Your task to perform on an android device: Open calendar and show me the fourth week of next month Image 0: 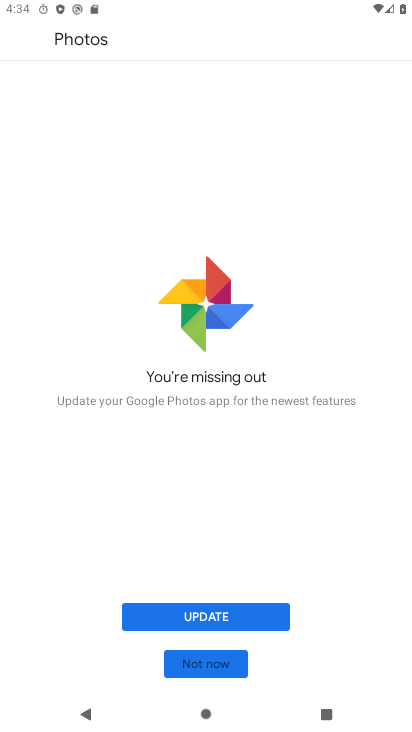
Step 0: click (205, 667)
Your task to perform on an android device: Open calendar and show me the fourth week of next month Image 1: 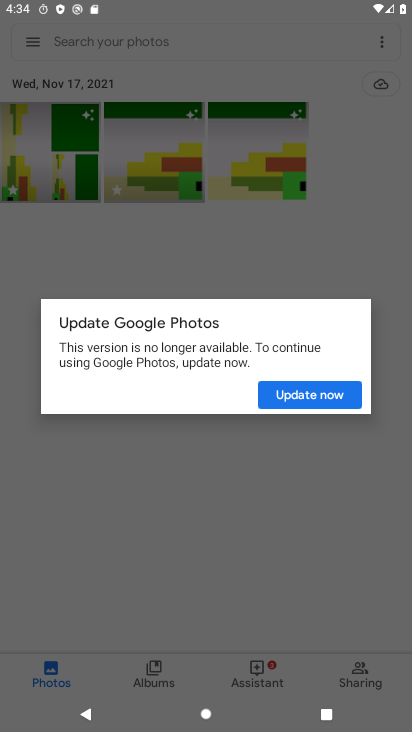
Step 1: press home button
Your task to perform on an android device: Open calendar and show me the fourth week of next month Image 2: 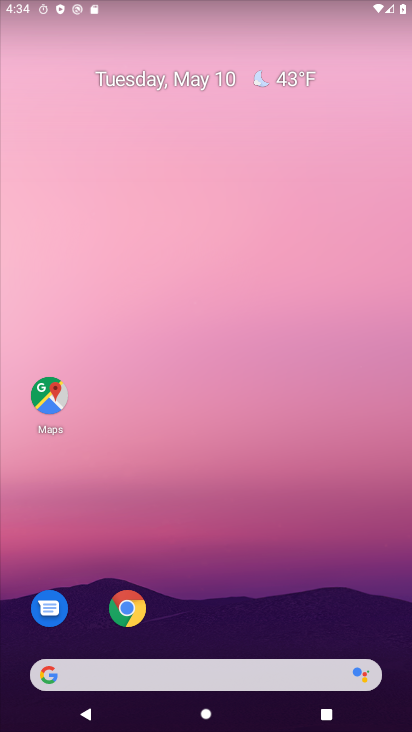
Step 2: drag from (212, 556) to (69, 5)
Your task to perform on an android device: Open calendar and show me the fourth week of next month Image 3: 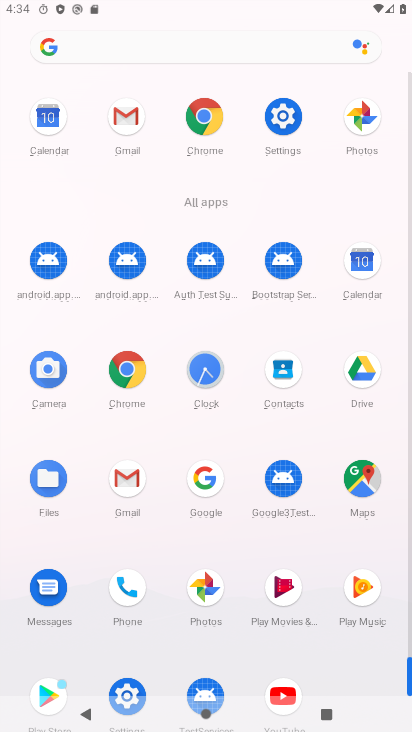
Step 3: click (365, 270)
Your task to perform on an android device: Open calendar and show me the fourth week of next month Image 4: 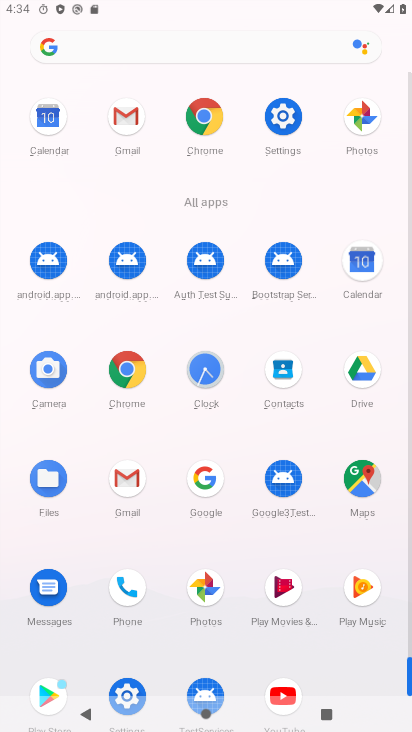
Step 4: click (365, 270)
Your task to perform on an android device: Open calendar and show me the fourth week of next month Image 5: 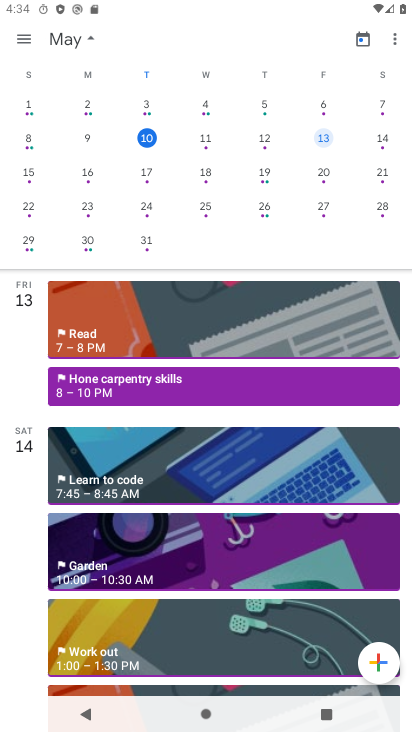
Step 5: drag from (194, 156) to (3, 106)
Your task to perform on an android device: Open calendar and show me the fourth week of next month Image 6: 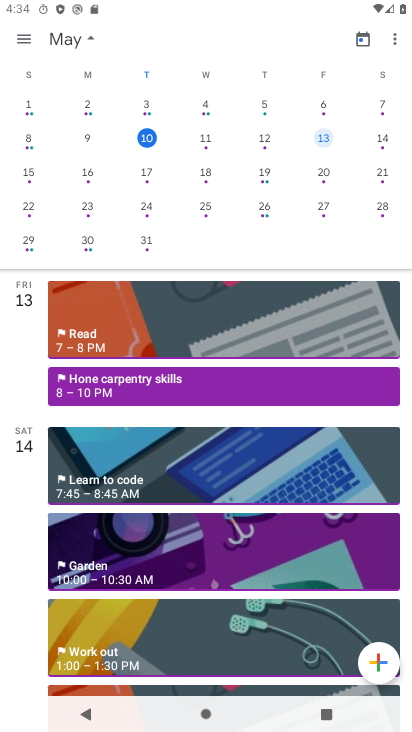
Step 6: drag from (175, 174) to (37, 147)
Your task to perform on an android device: Open calendar and show me the fourth week of next month Image 7: 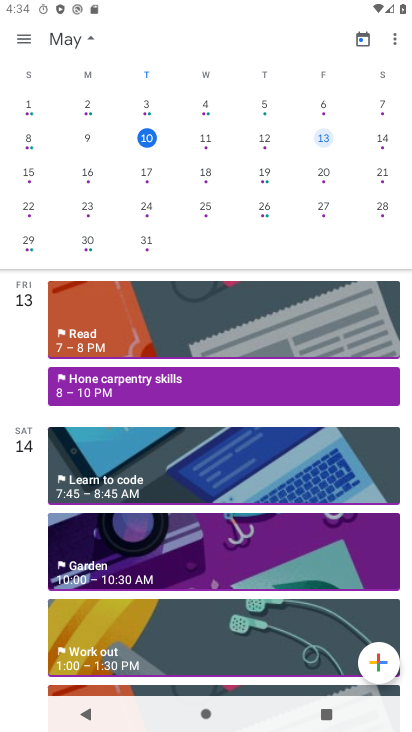
Step 7: drag from (122, 146) to (13, 169)
Your task to perform on an android device: Open calendar and show me the fourth week of next month Image 8: 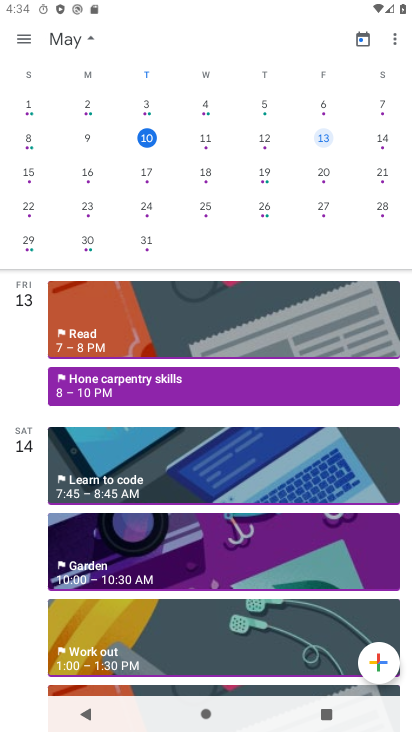
Step 8: click (33, 165)
Your task to perform on an android device: Open calendar and show me the fourth week of next month Image 9: 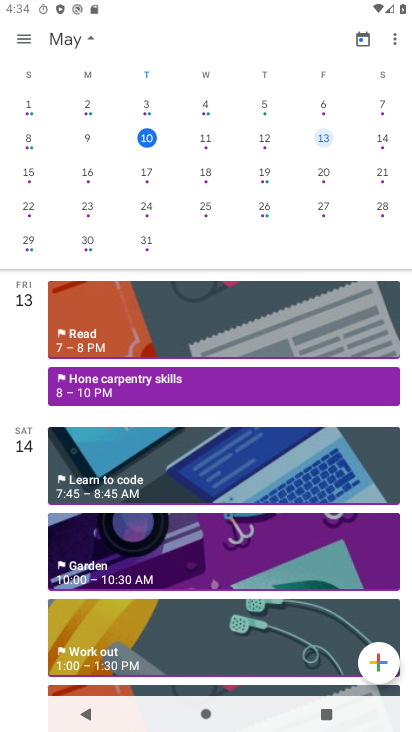
Step 9: drag from (181, 169) to (0, 209)
Your task to perform on an android device: Open calendar and show me the fourth week of next month Image 10: 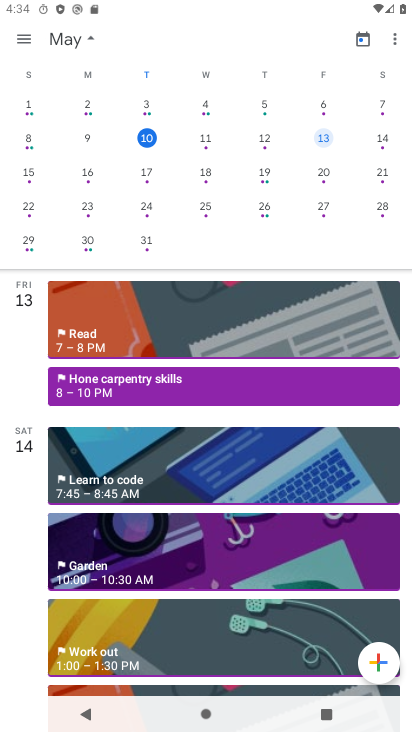
Step 10: drag from (223, 148) to (5, 117)
Your task to perform on an android device: Open calendar and show me the fourth week of next month Image 11: 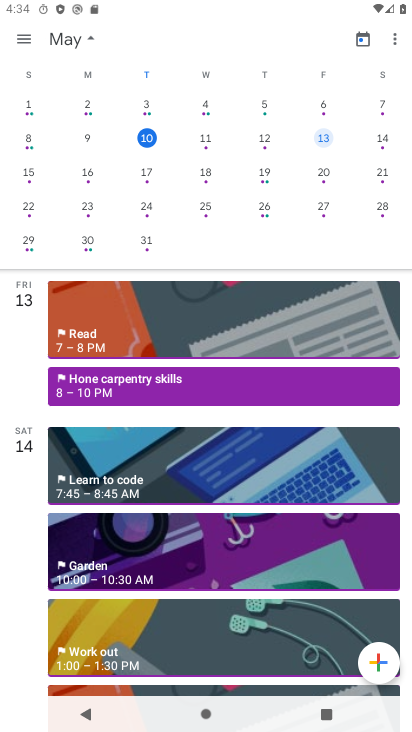
Step 11: drag from (221, 155) to (64, 210)
Your task to perform on an android device: Open calendar and show me the fourth week of next month Image 12: 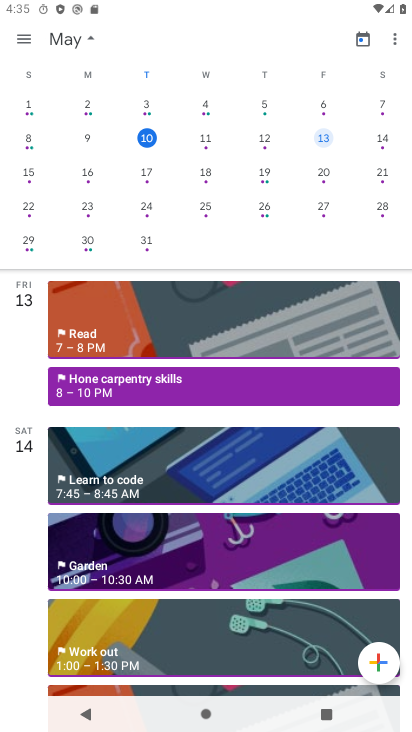
Step 12: drag from (296, 181) to (6, 207)
Your task to perform on an android device: Open calendar and show me the fourth week of next month Image 13: 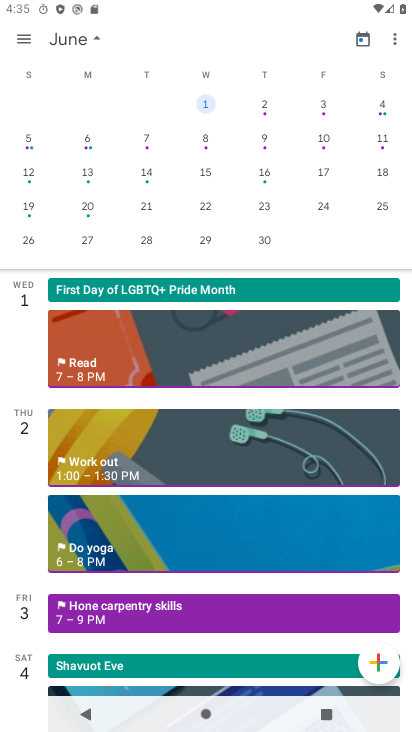
Step 13: click (43, 198)
Your task to perform on an android device: Open calendar and show me the fourth week of next month Image 14: 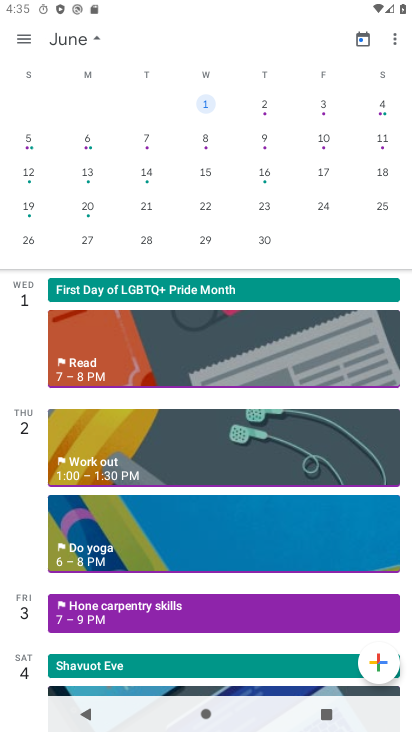
Step 14: click (199, 172)
Your task to perform on an android device: Open calendar and show me the fourth week of next month Image 15: 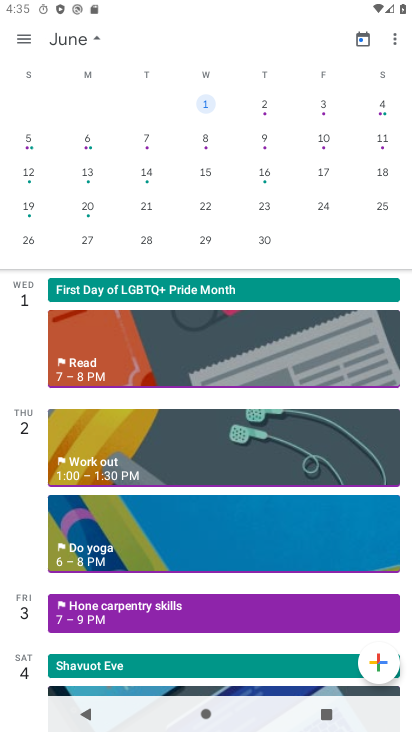
Step 15: click (200, 171)
Your task to perform on an android device: Open calendar and show me the fourth week of next month Image 16: 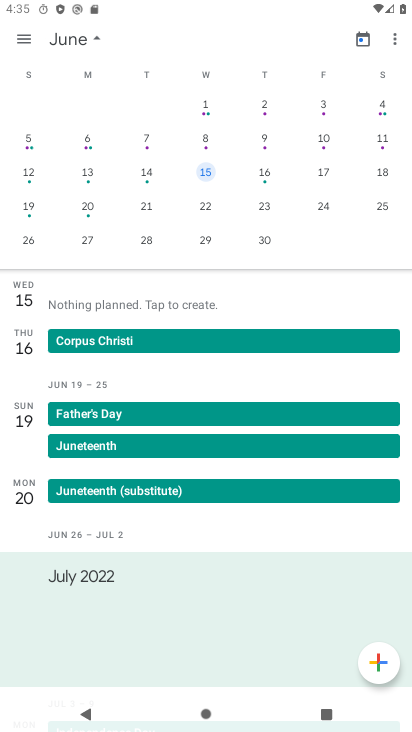
Step 16: click (207, 167)
Your task to perform on an android device: Open calendar and show me the fourth week of next month Image 17: 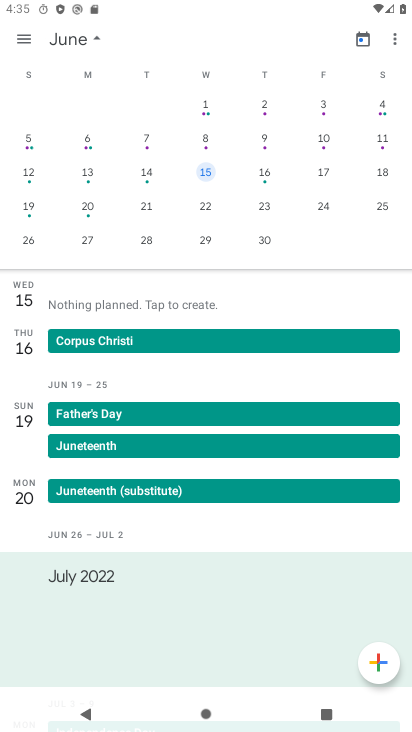
Step 17: task complete